Your task to perform on an android device: Show me the alarms in the clock app Image 0: 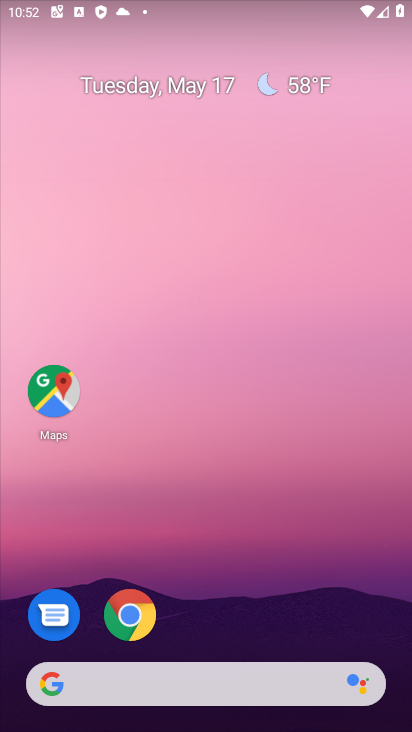
Step 0: drag from (397, 645) to (296, 46)
Your task to perform on an android device: Show me the alarms in the clock app Image 1: 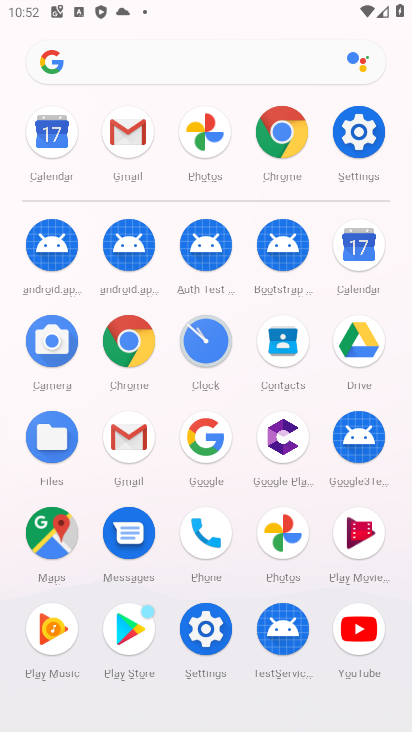
Step 1: click (202, 336)
Your task to perform on an android device: Show me the alarms in the clock app Image 2: 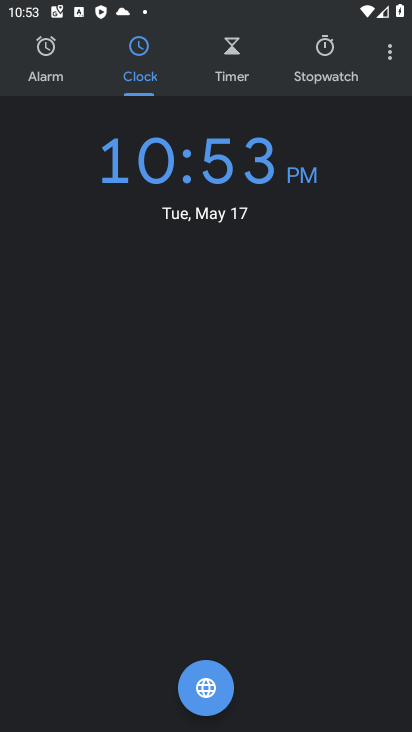
Step 2: click (43, 56)
Your task to perform on an android device: Show me the alarms in the clock app Image 3: 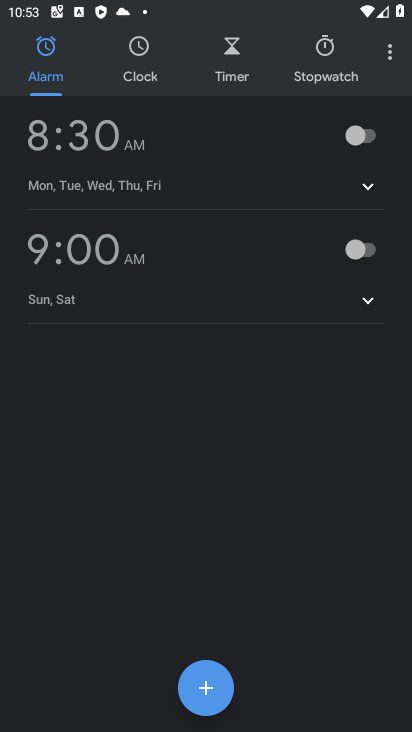
Step 3: task complete